Your task to perform on an android device: Play the last video I watched on Youtube Image 0: 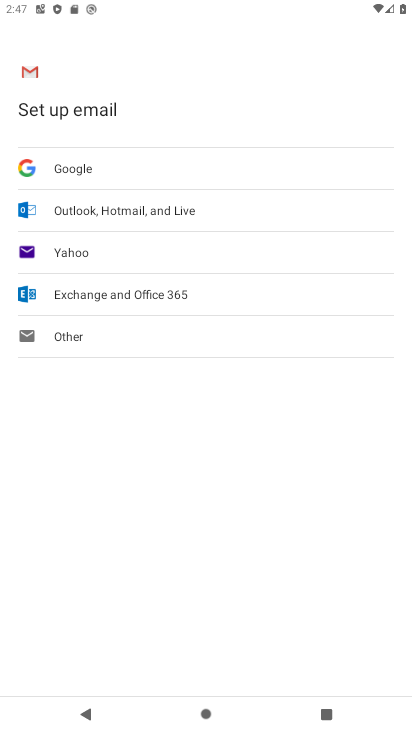
Step 0: press home button
Your task to perform on an android device: Play the last video I watched on Youtube Image 1: 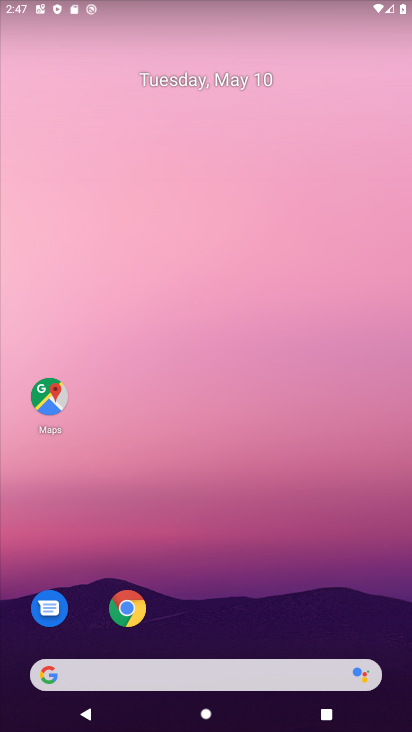
Step 1: drag from (166, 640) to (361, 1)
Your task to perform on an android device: Play the last video I watched on Youtube Image 2: 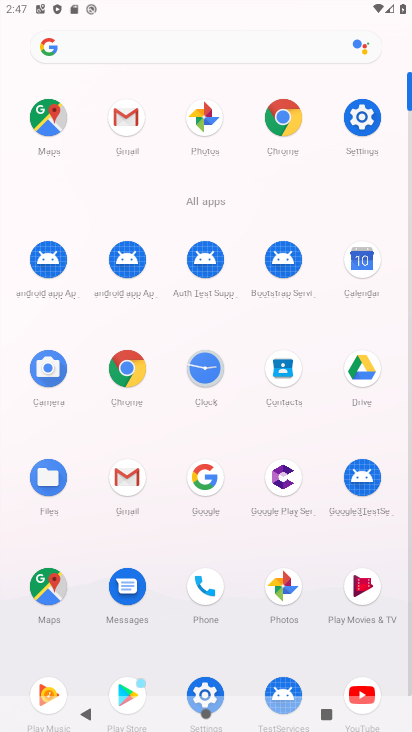
Step 2: drag from (230, 614) to (248, 281)
Your task to perform on an android device: Play the last video I watched on Youtube Image 3: 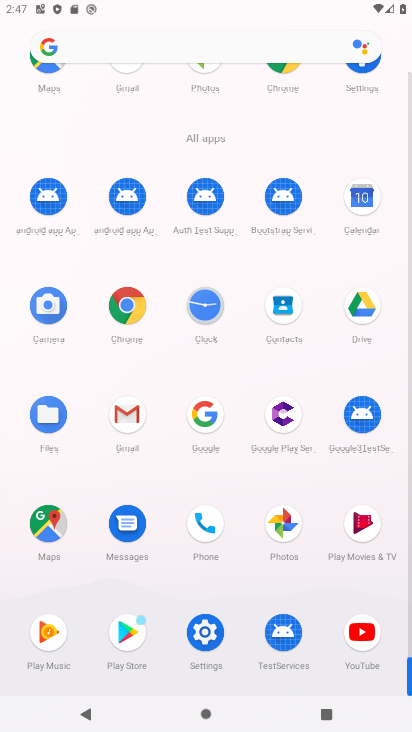
Step 3: click (360, 651)
Your task to perform on an android device: Play the last video I watched on Youtube Image 4: 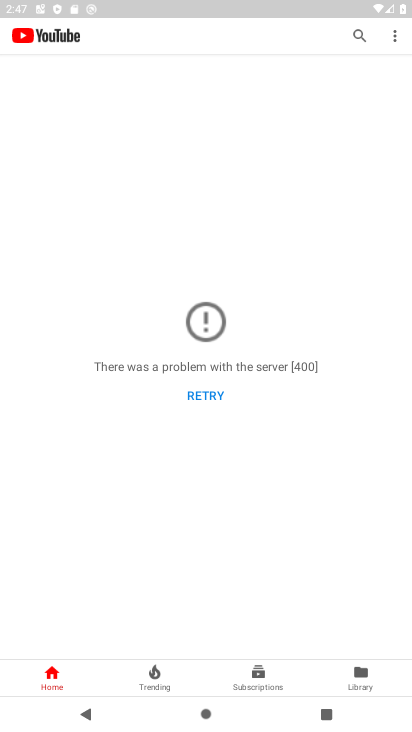
Step 4: click (368, 673)
Your task to perform on an android device: Play the last video I watched on Youtube Image 5: 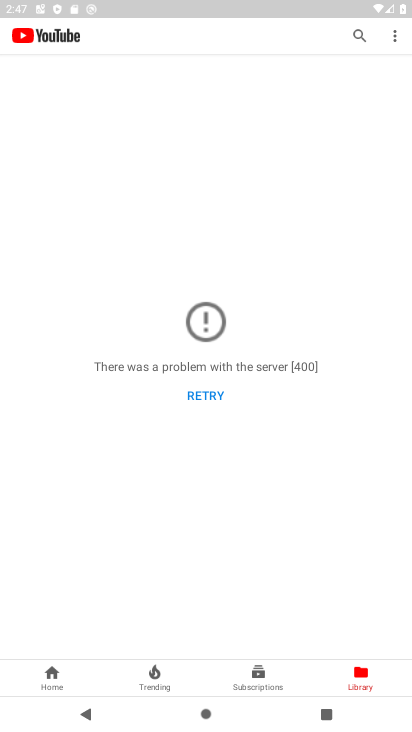
Step 5: click (196, 396)
Your task to perform on an android device: Play the last video I watched on Youtube Image 6: 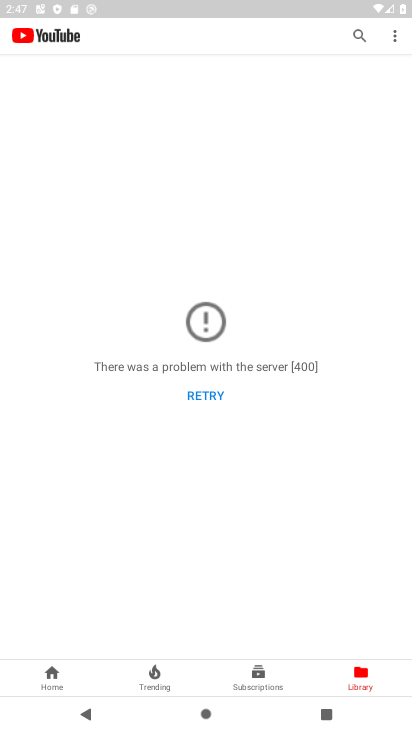
Step 6: click (196, 396)
Your task to perform on an android device: Play the last video I watched on Youtube Image 7: 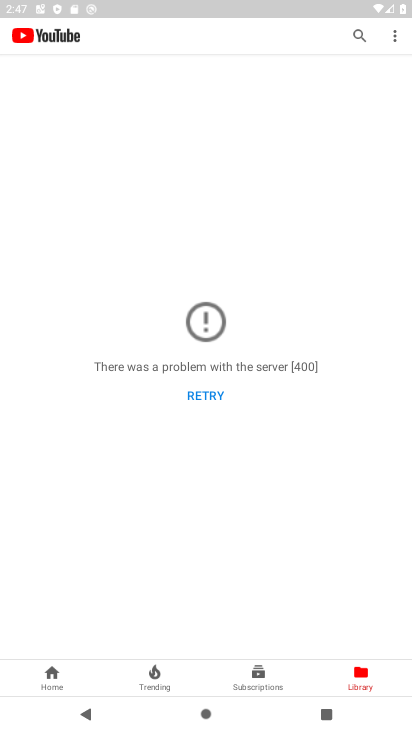
Step 7: task complete